Your task to perform on an android device: Open Google Maps and go to "Timeline" Image 0: 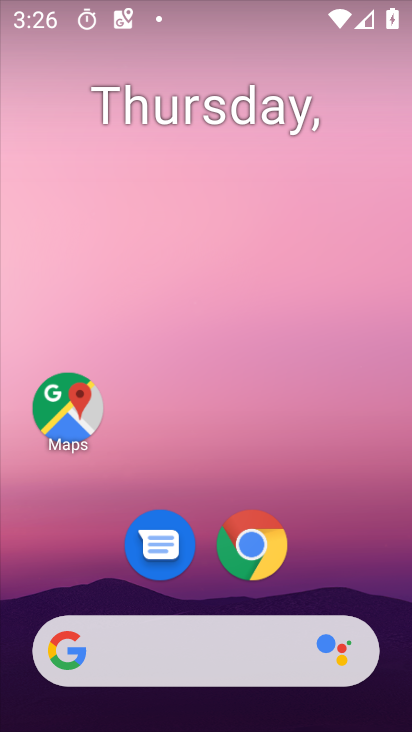
Step 0: drag from (182, 715) to (180, 131)
Your task to perform on an android device: Open Google Maps and go to "Timeline" Image 1: 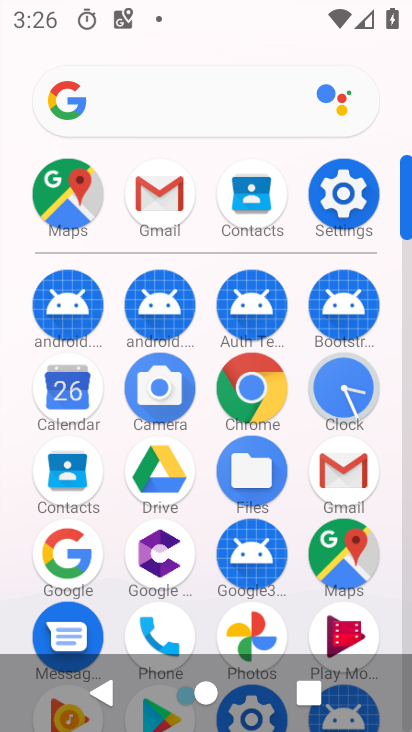
Step 1: click (353, 560)
Your task to perform on an android device: Open Google Maps and go to "Timeline" Image 2: 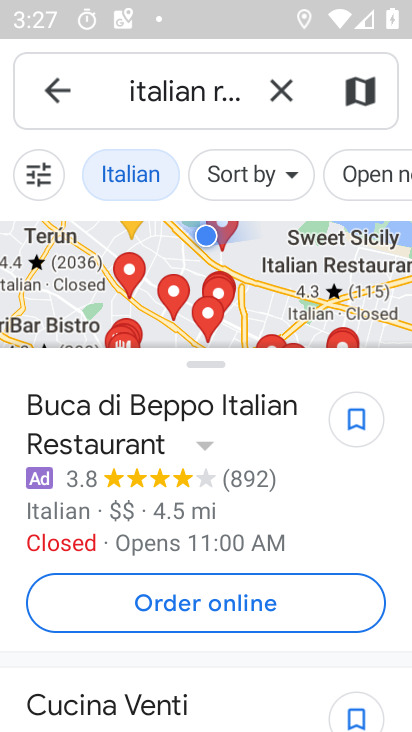
Step 2: click (60, 81)
Your task to perform on an android device: Open Google Maps and go to "Timeline" Image 3: 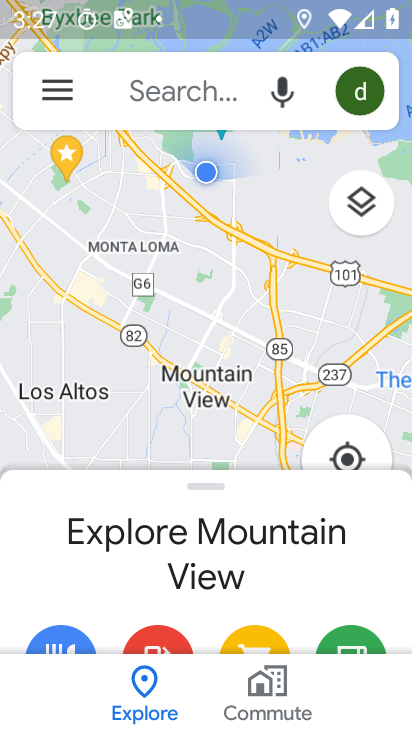
Step 3: click (52, 89)
Your task to perform on an android device: Open Google Maps and go to "Timeline" Image 4: 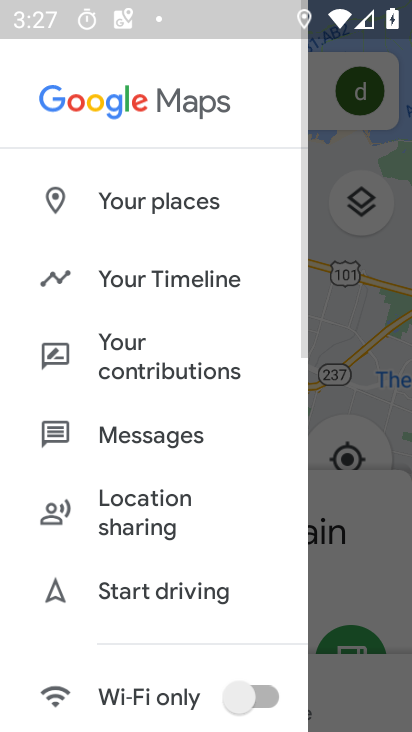
Step 4: click (144, 278)
Your task to perform on an android device: Open Google Maps and go to "Timeline" Image 5: 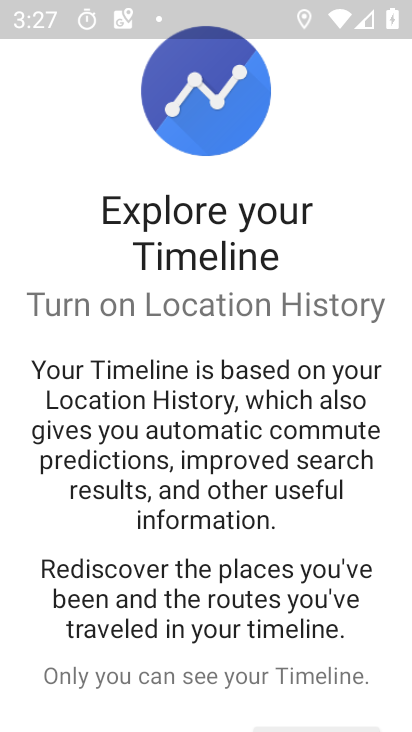
Step 5: drag from (166, 624) to (158, 204)
Your task to perform on an android device: Open Google Maps and go to "Timeline" Image 6: 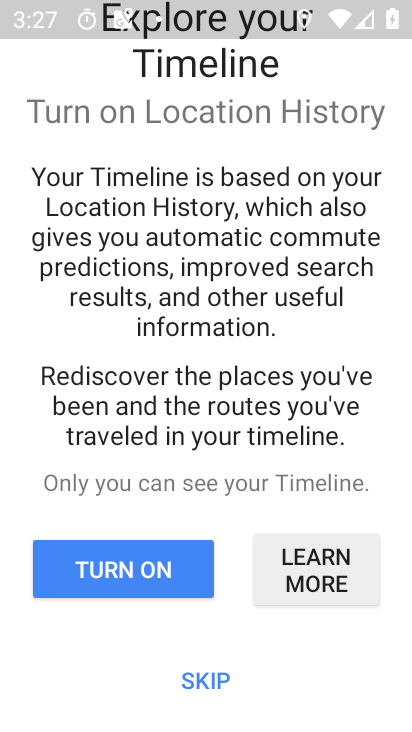
Step 6: click (213, 672)
Your task to perform on an android device: Open Google Maps and go to "Timeline" Image 7: 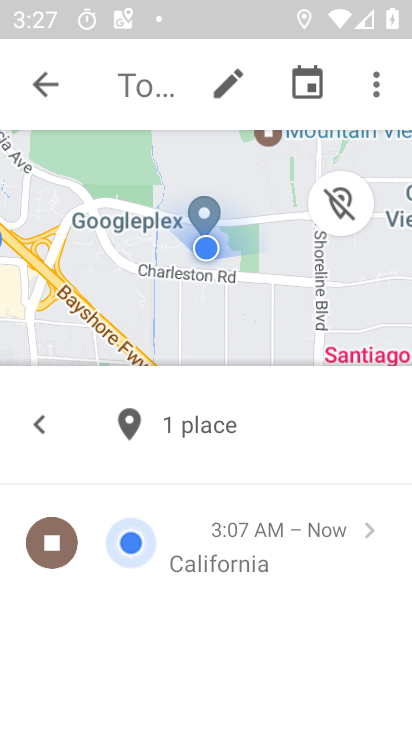
Step 7: task complete